Your task to perform on an android device: Turn off the flashlight Image 0: 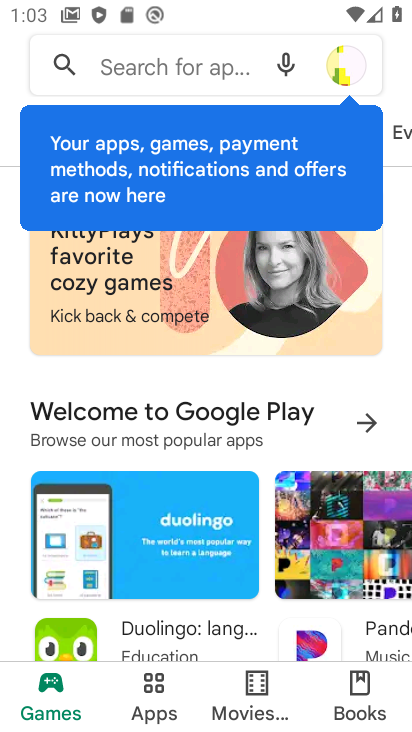
Step 0: press home button
Your task to perform on an android device: Turn off the flashlight Image 1: 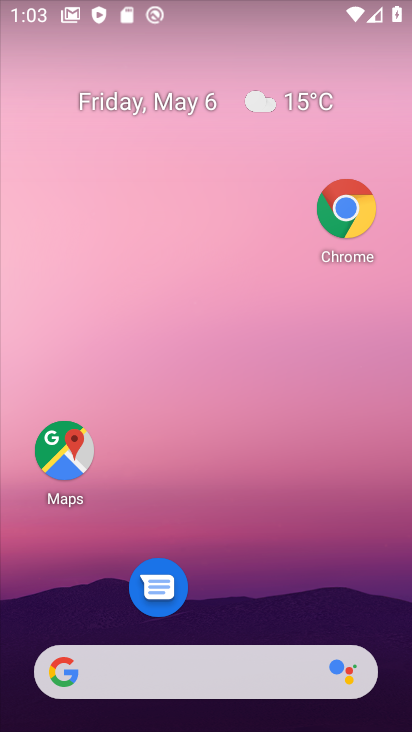
Step 1: task complete